Your task to perform on an android device: open app "Cash App" (install if not already installed) Image 0: 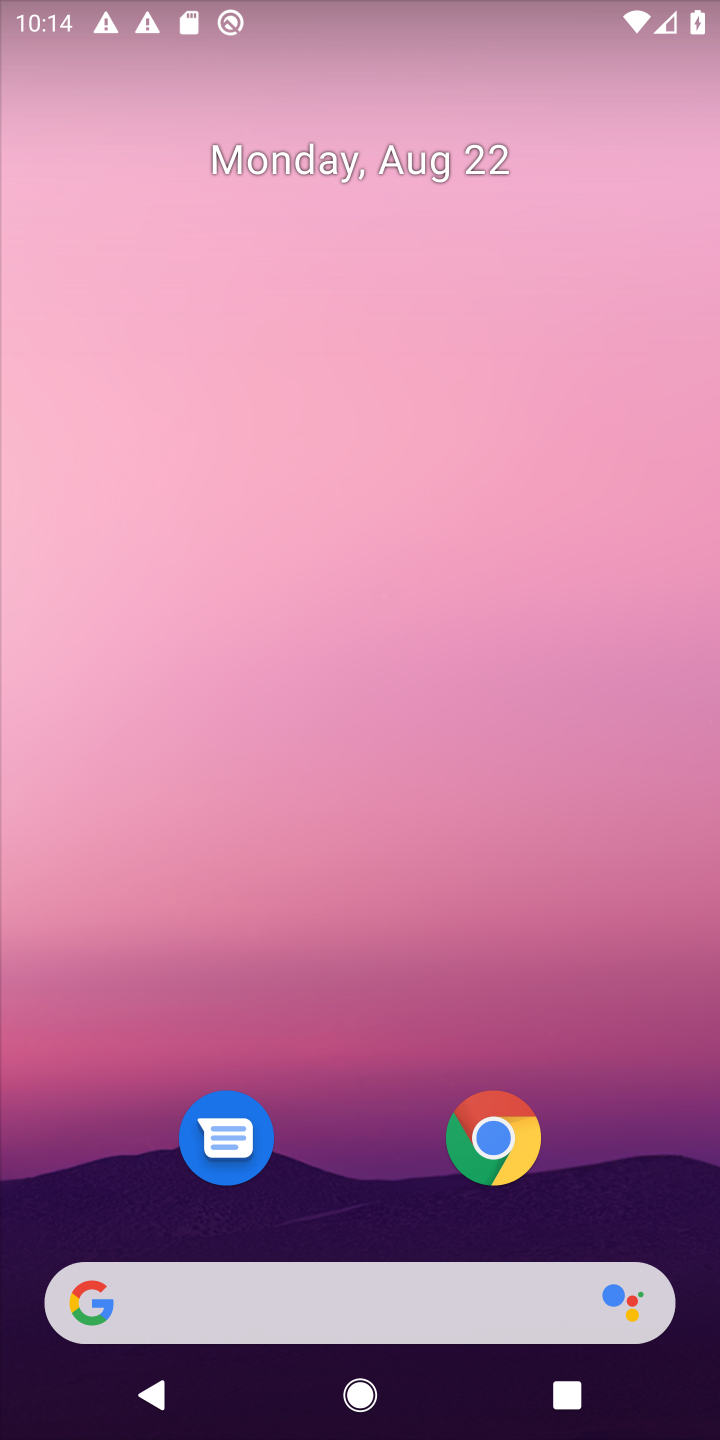
Step 0: press home button
Your task to perform on an android device: open app "Cash App" (install if not already installed) Image 1: 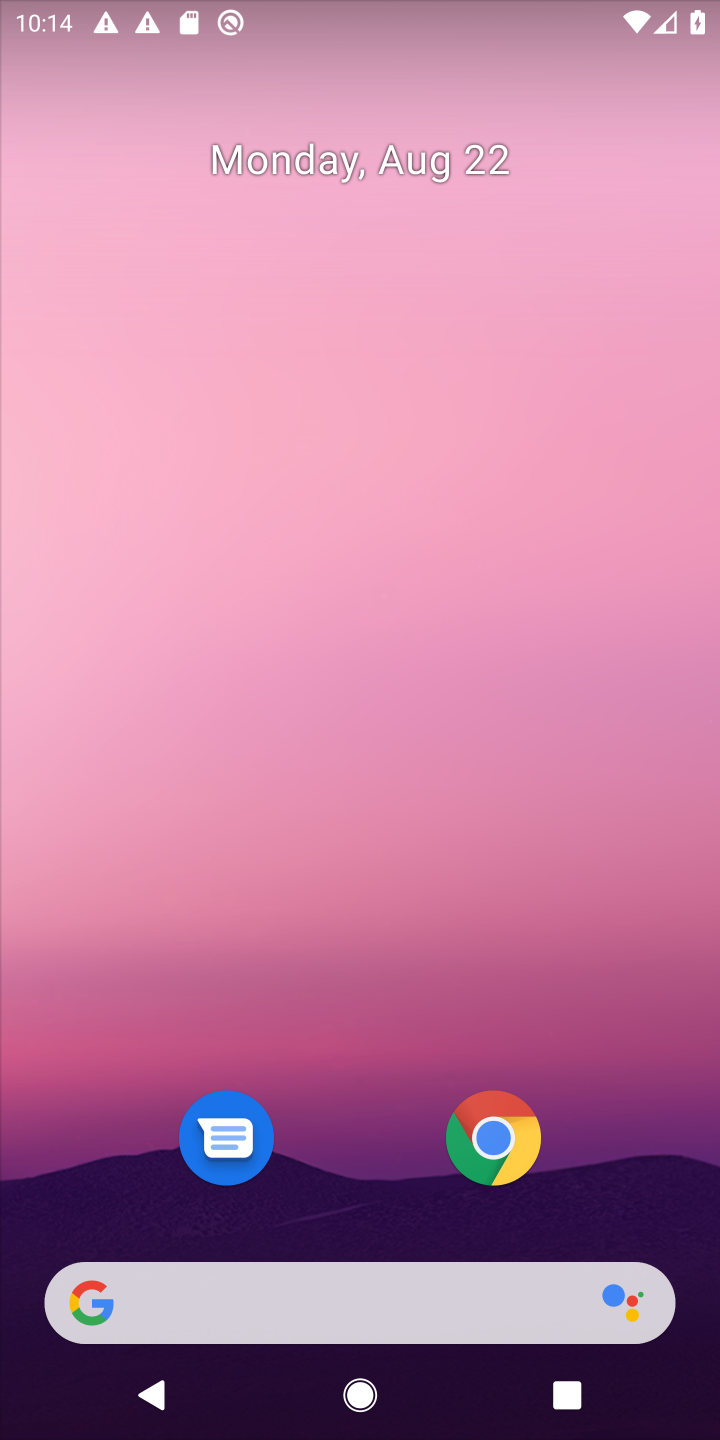
Step 1: drag from (612, 1160) to (573, 151)
Your task to perform on an android device: open app "Cash App" (install if not already installed) Image 2: 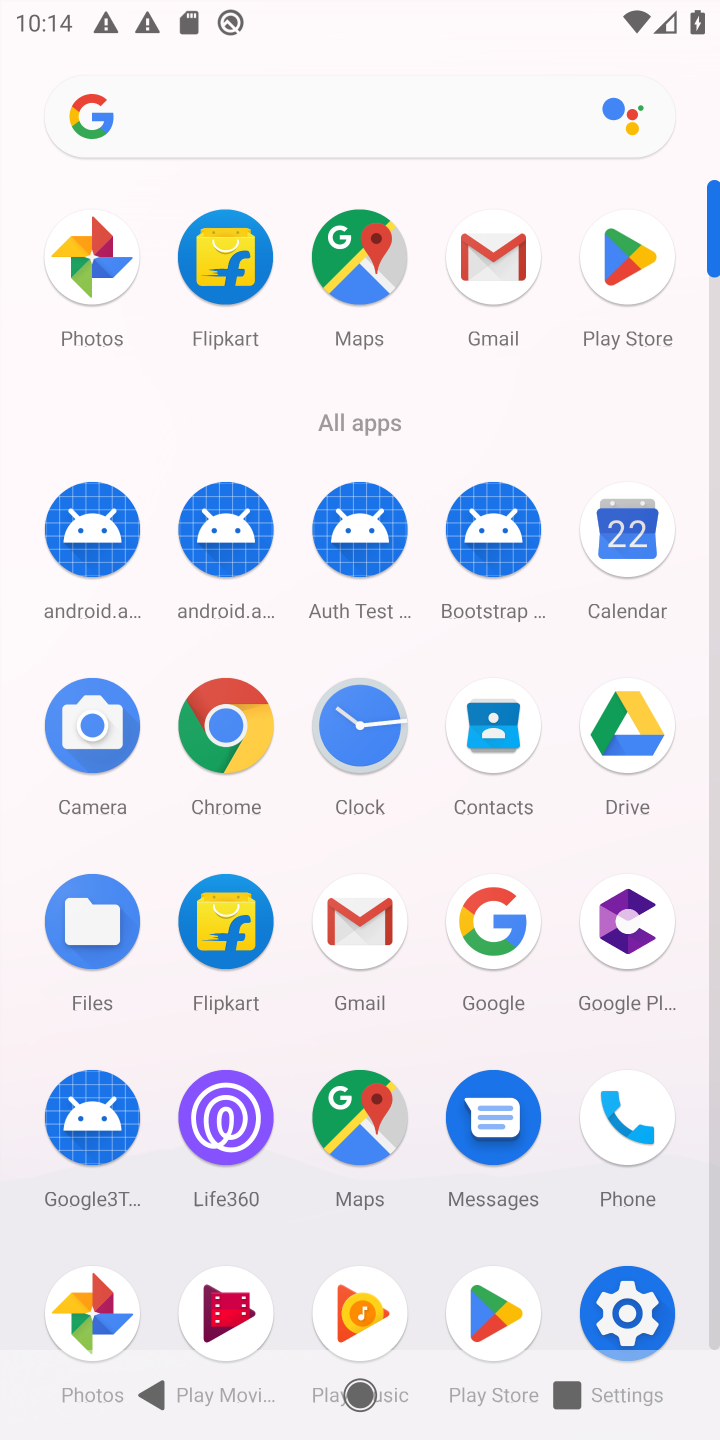
Step 2: click (633, 283)
Your task to perform on an android device: open app "Cash App" (install if not already installed) Image 3: 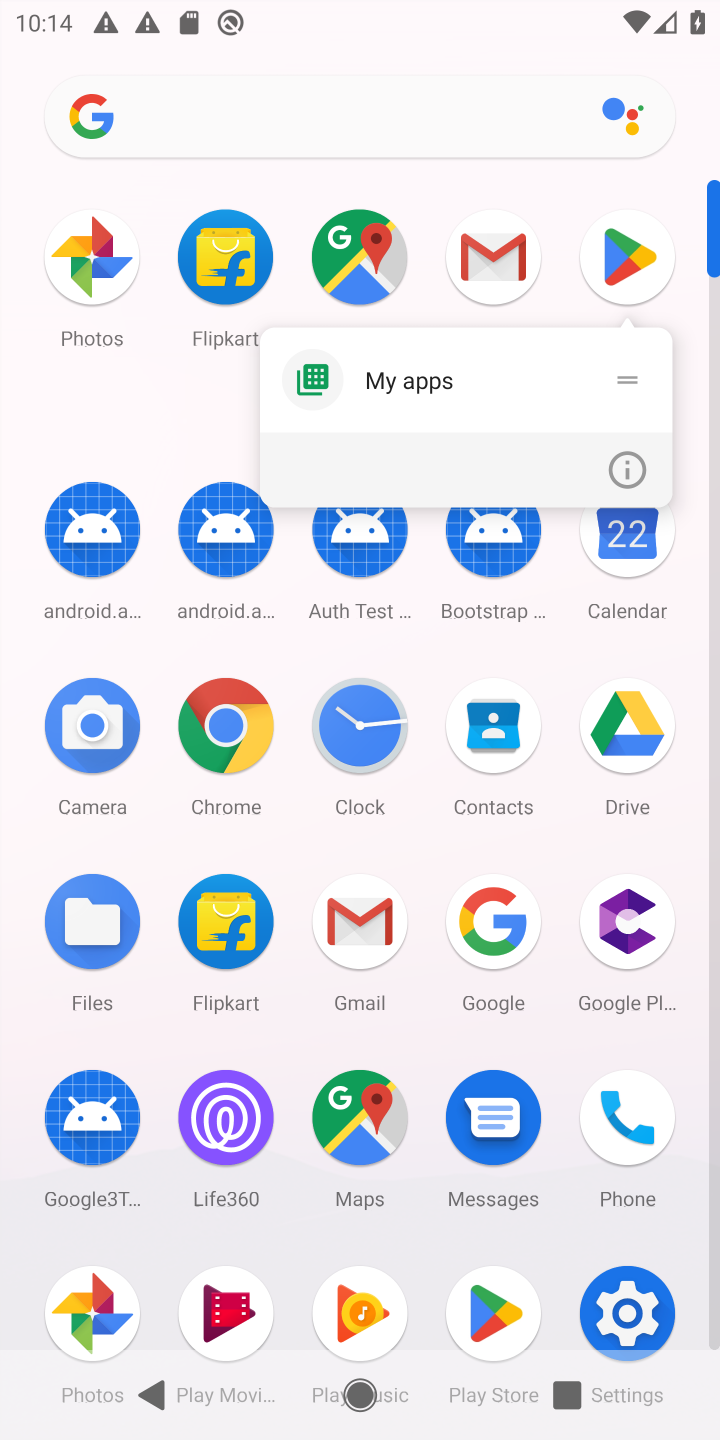
Step 3: click (630, 227)
Your task to perform on an android device: open app "Cash App" (install if not already installed) Image 4: 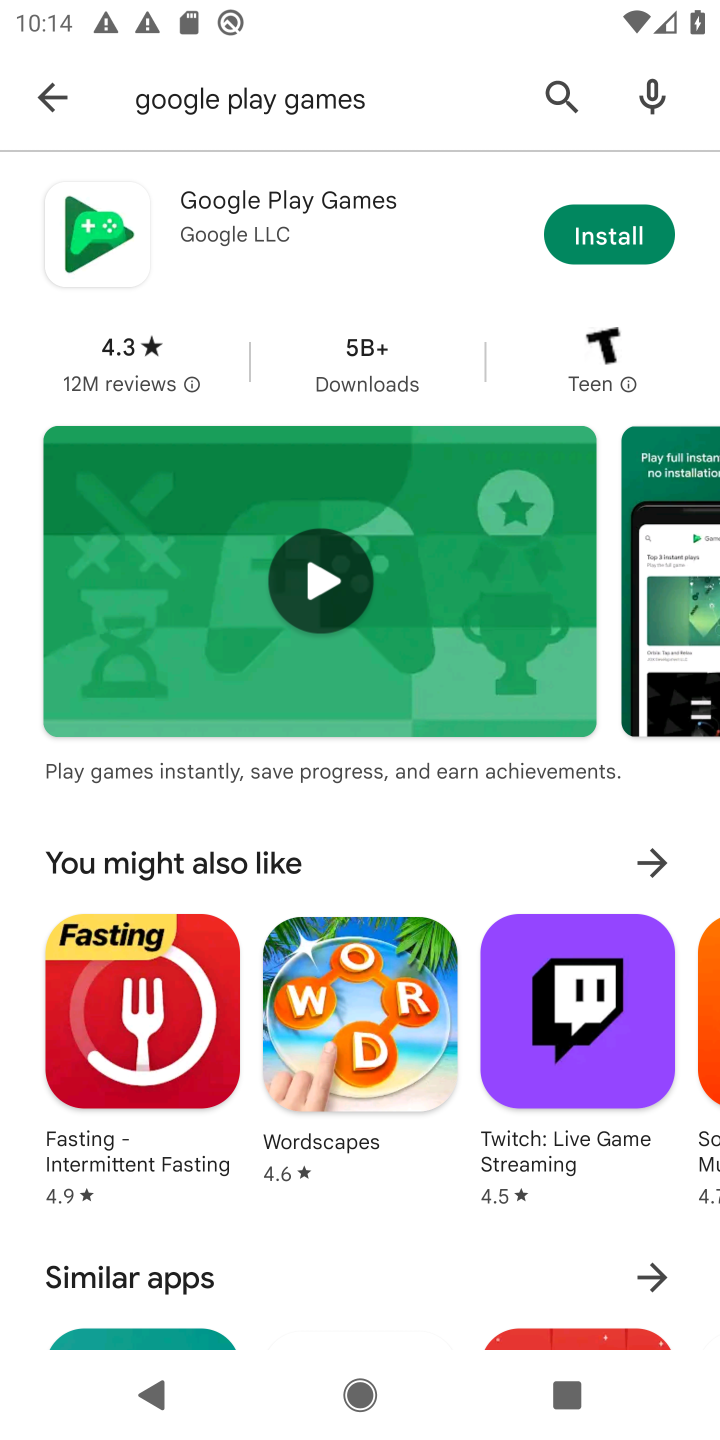
Step 4: press back button
Your task to perform on an android device: open app "Cash App" (install if not already installed) Image 5: 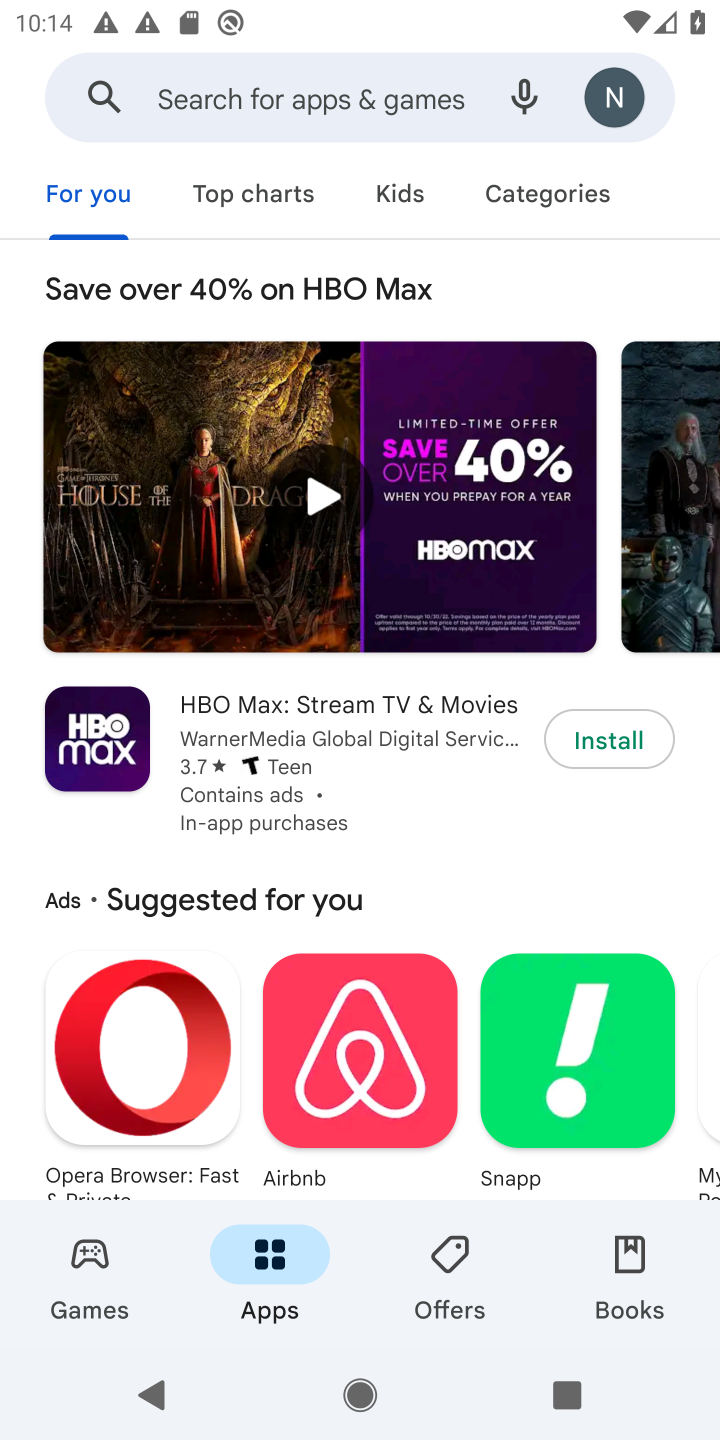
Step 5: click (251, 97)
Your task to perform on an android device: open app "Cash App" (install if not already installed) Image 6: 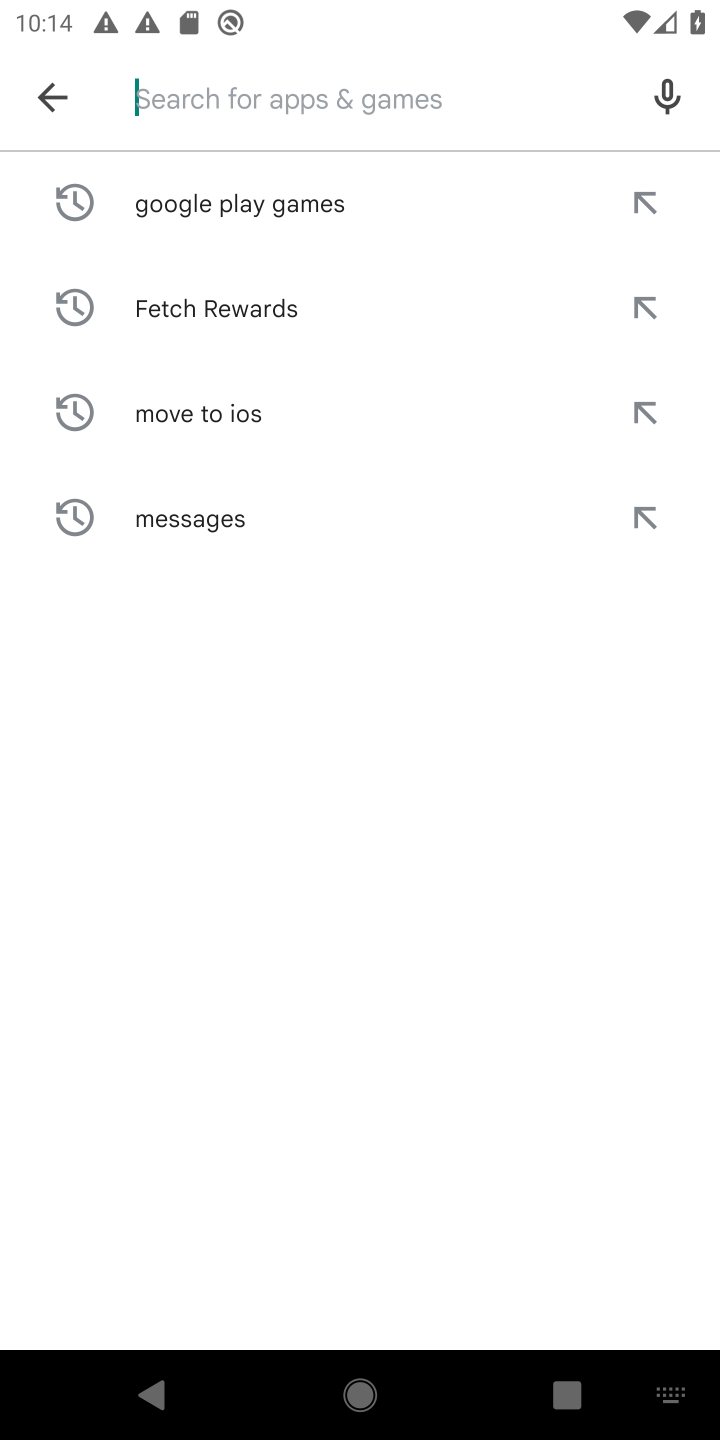
Step 6: press enter
Your task to perform on an android device: open app "Cash App" (install if not already installed) Image 7: 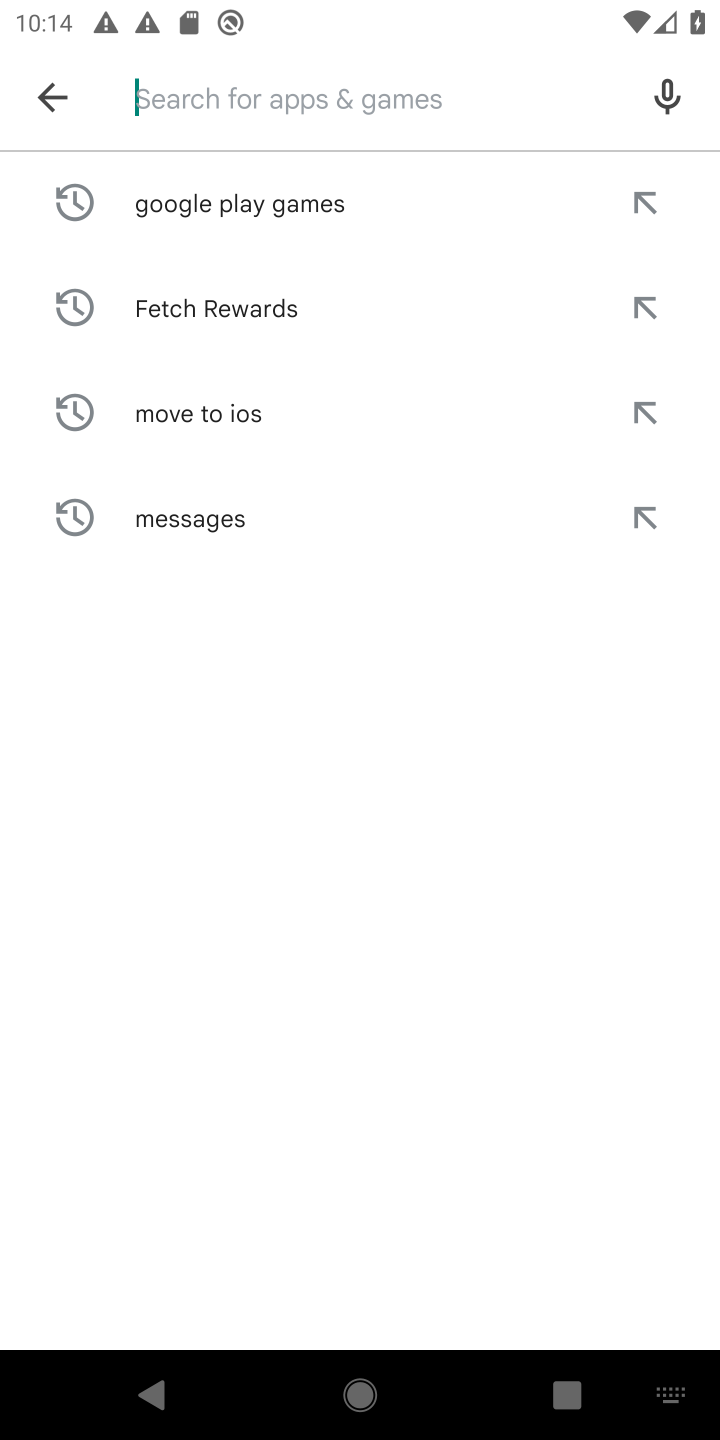
Step 7: type "cash app"
Your task to perform on an android device: open app "Cash App" (install if not already installed) Image 8: 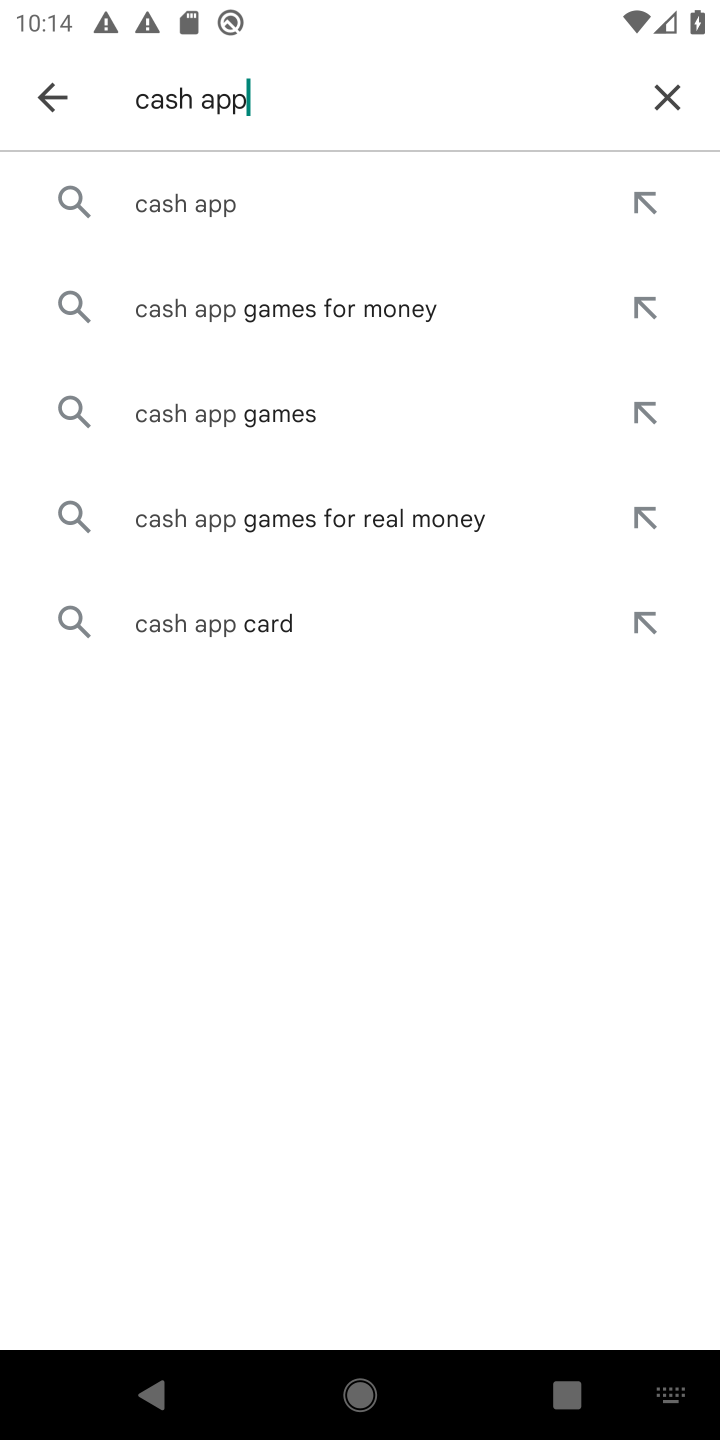
Step 8: click (287, 197)
Your task to perform on an android device: open app "Cash App" (install if not already installed) Image 9: 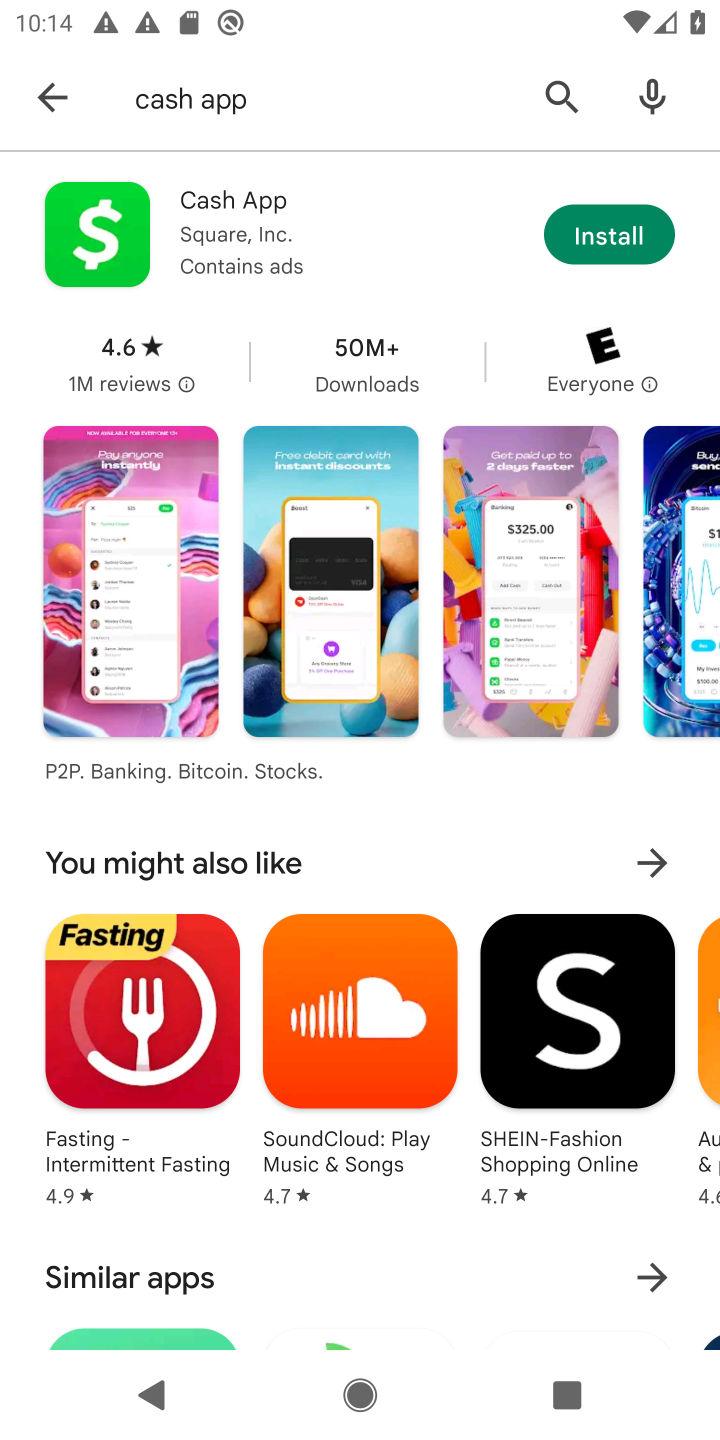
Step 9: click (587, 228)
Your task to perform on an android device: open app "Cash App" (install if not already installed) Image 10: 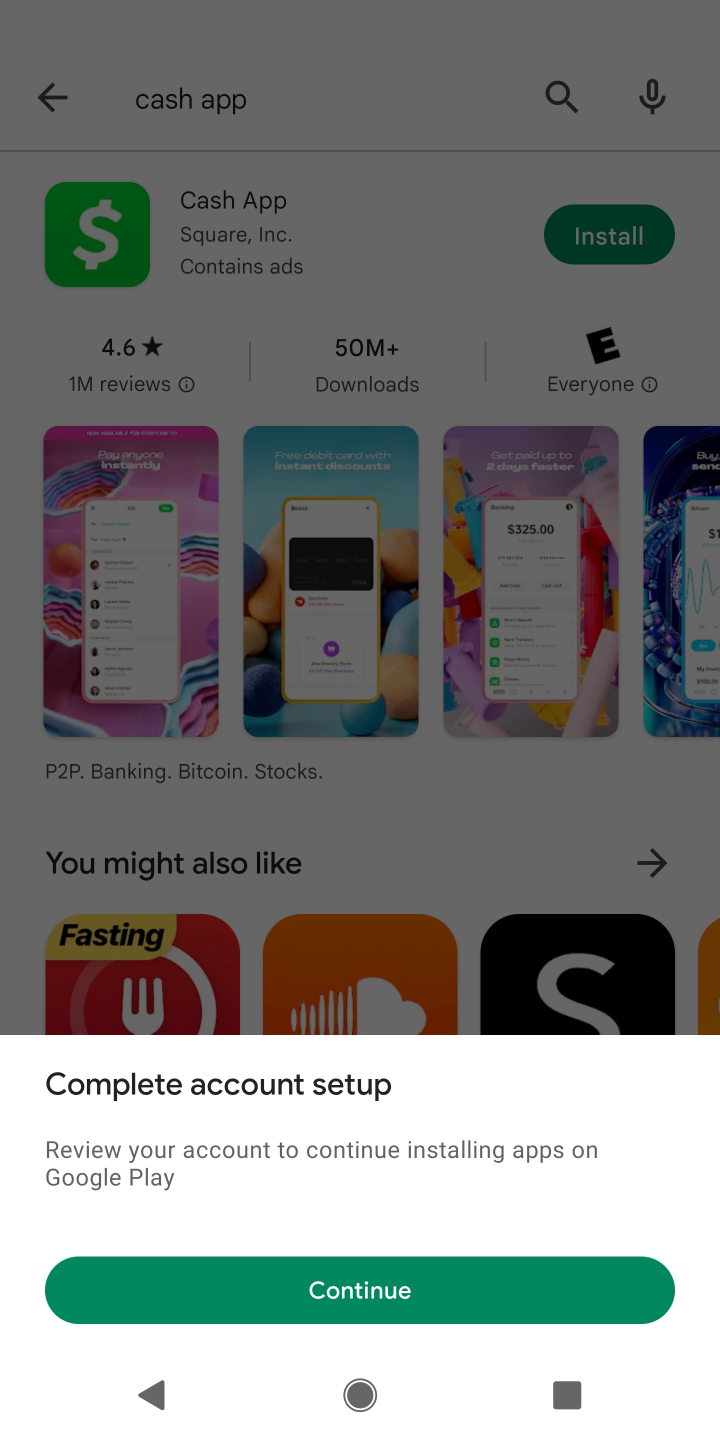
Step 10: click (504, 1304)
Your task to perform on an android device: open app "Cash App" (install if not already installed) Image 11: 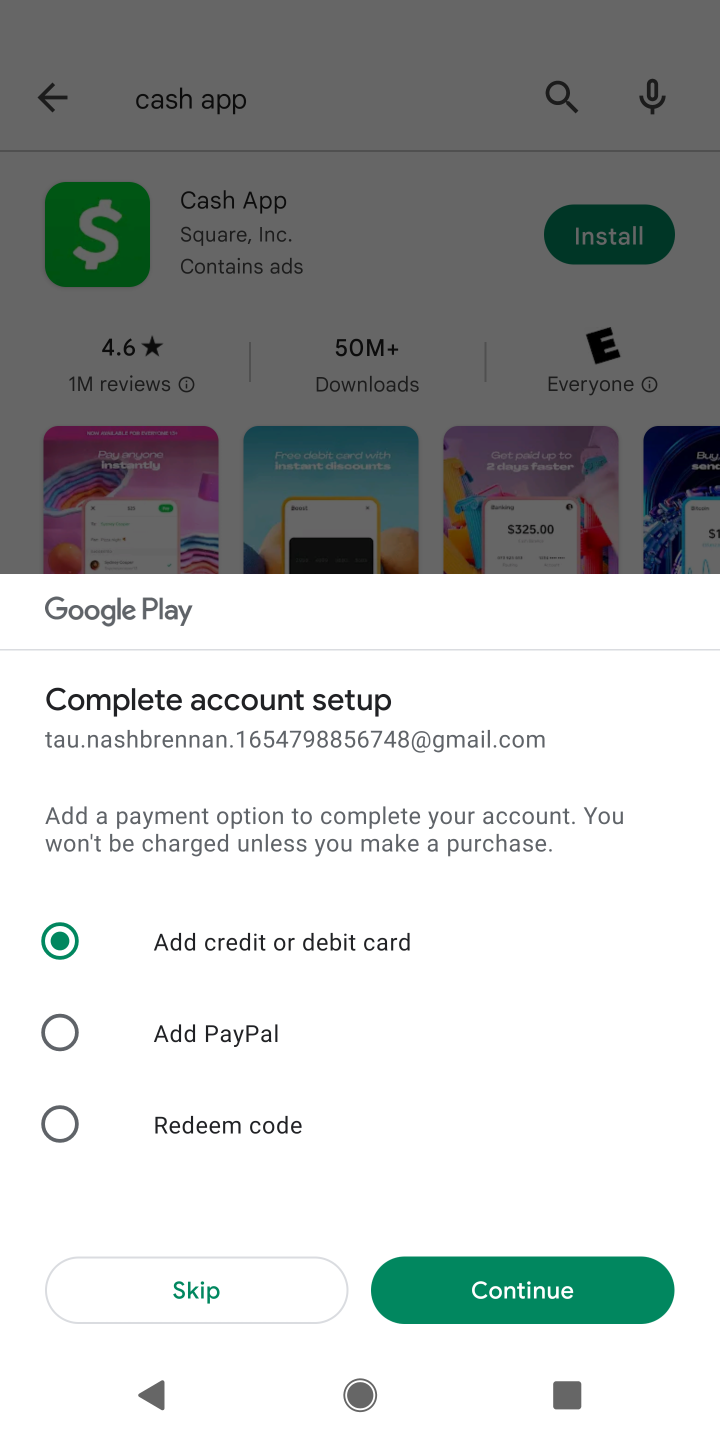
Step 11: click (196, 1293)
Your task to perform on an android device: open app "Cash App" (install if not already installed) Image 12: 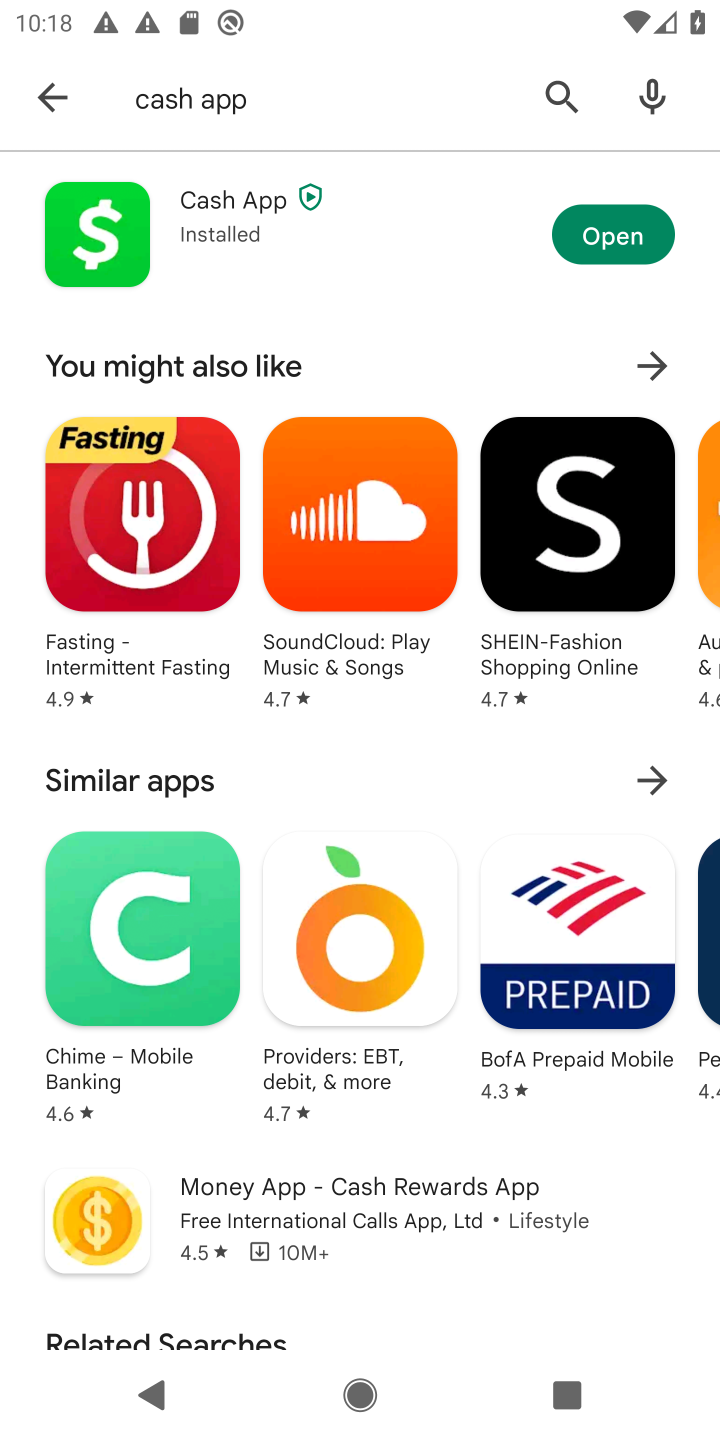
Step 12: click (626, 260)
Your task to perform on an android device: open app "Cash App" (install if not already installed) Image 13: 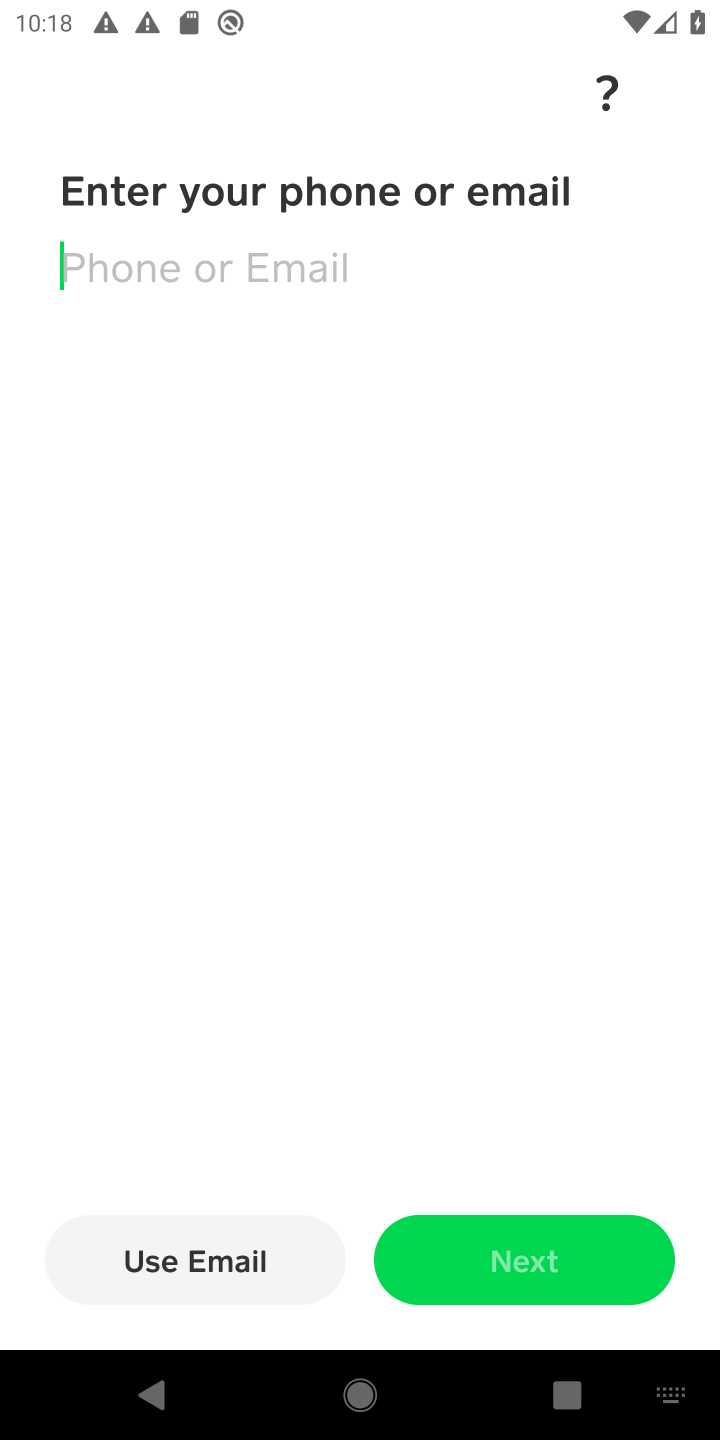
Step 13: task complete